Your task to perform on an android device: Find coffee shops on Maps Image 0: 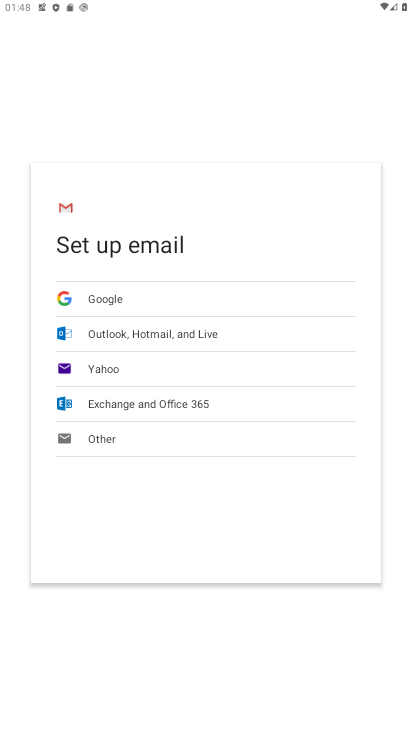
Step 0: press home button
Your task to perform on an android device: Find coffee shops on Maps Image 1: 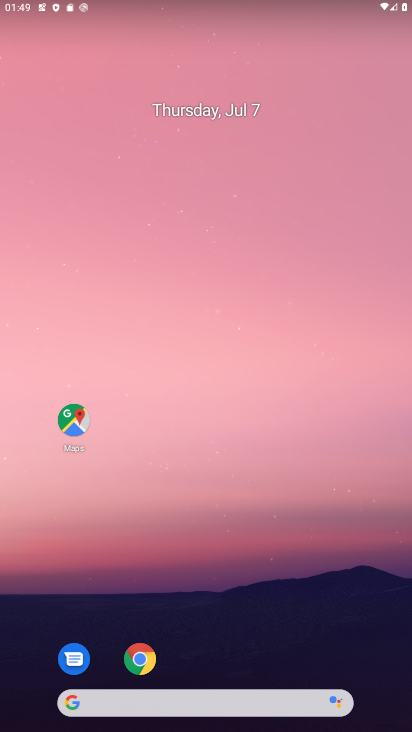
Step 1: click (81, 420)
Your task to perform on an android device: Find coffee shops on Maps Image 2: 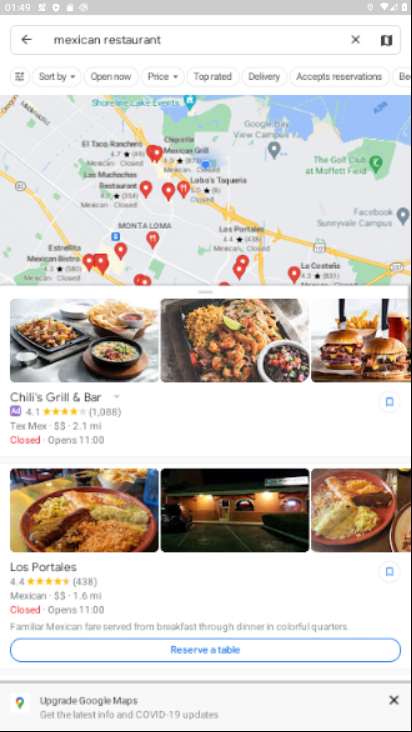
Step 2: click (238, 45)
Your task to perform on an android device: Find coffee shops on Maps Image 3: 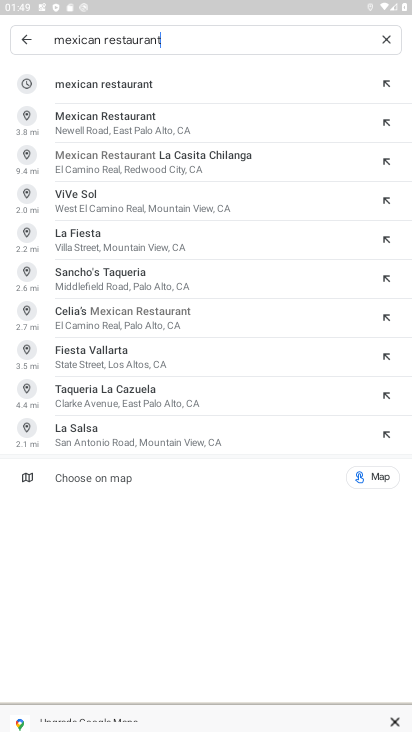
Step 3: click (385, 38)
Your task to perform on an android device: Find coffee shops on Maps Image 4: 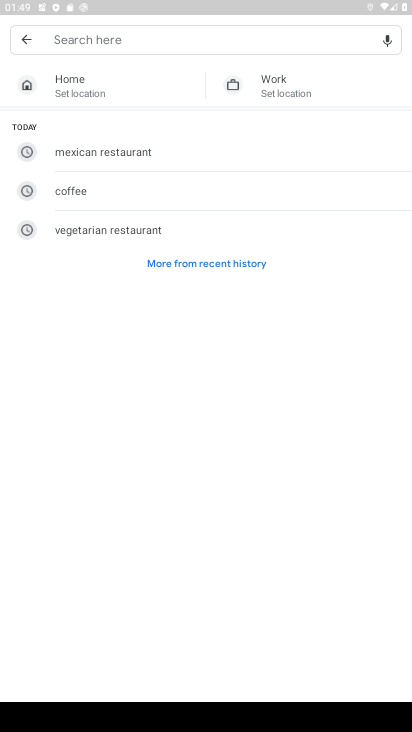
Step 4: click (120, 195)
Your task to perform on an android device: Find coffee shops on Maps Image 5: 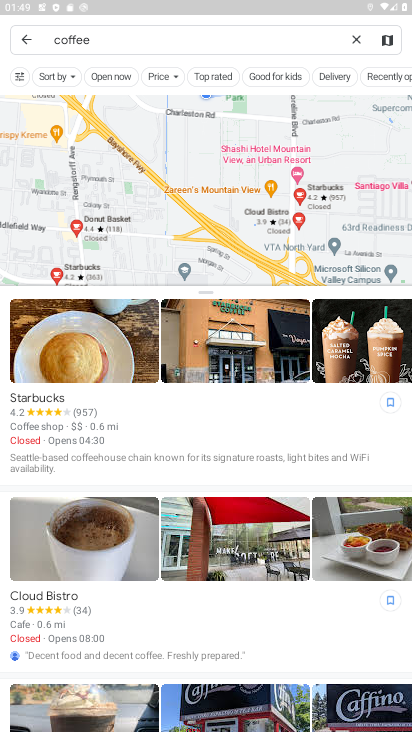
Step 5: task complete